Your task to perform on an android device: When is my next appointment? Image 0: 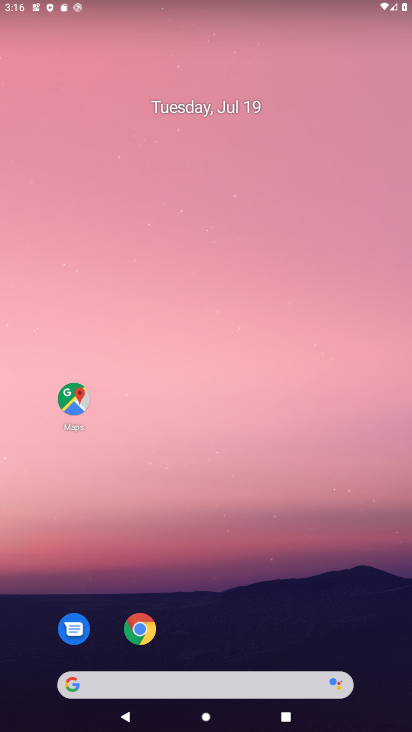
Step 0: drag from (255, 669) to (260, 283)
Your task to perform on an android device: When is my next appointment? Image 1: 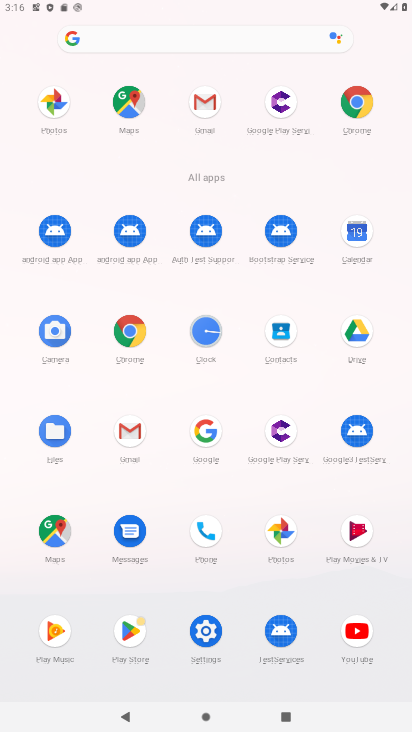
Step 1: click (354, 233)
Your task to perform on an android device: When is my next appointment? Image 2: 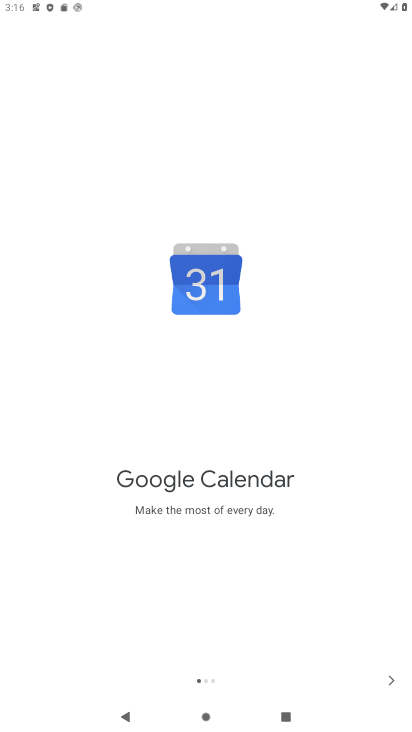
Step 2: click (396, 681)
Your task to perform on an android device: When is my next appointment? Image 3: 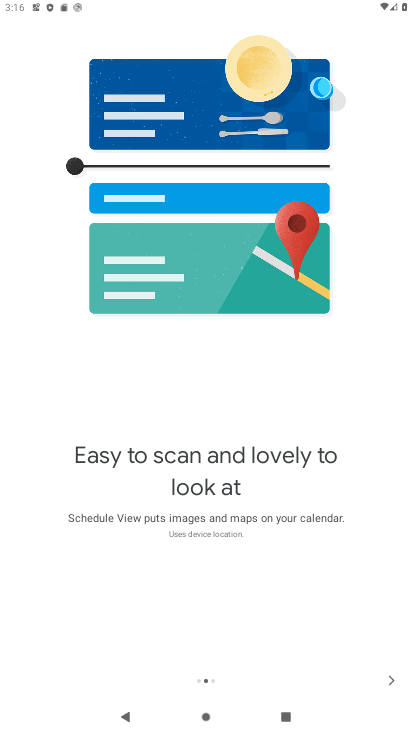
Step 3: click (396, 681)
Your task to perform on an android device: When is my next appointment? Image 4: 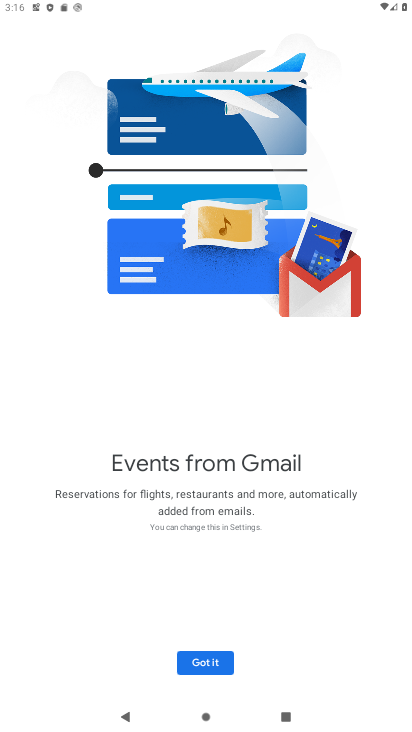
Step 4: click (232, 666)
Your task to perform on an android device: When is my next appointment? Image 5: 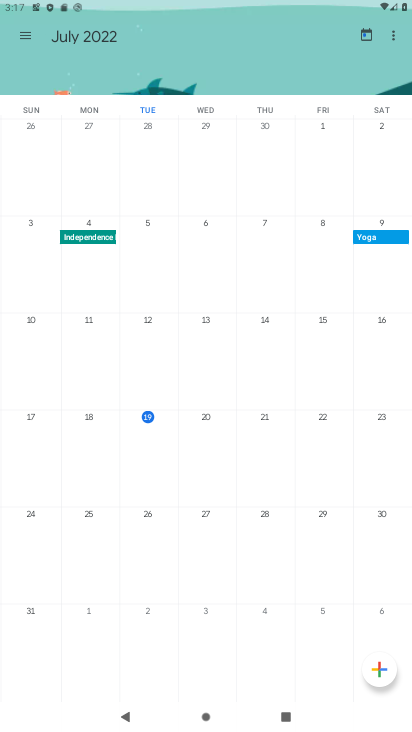
Step 5: task complete